Your task to perform on an android device: make emails show in primary in the gmail app Image 0: 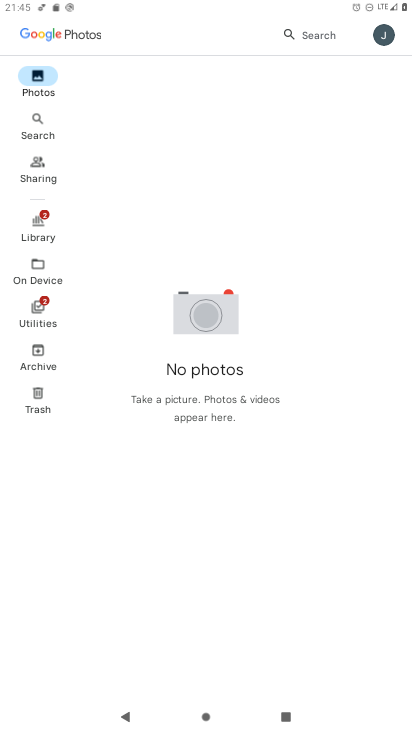
Step 0: press home button
Your task to perform on an android device: make emails show in primary in the gmail app Image 1: 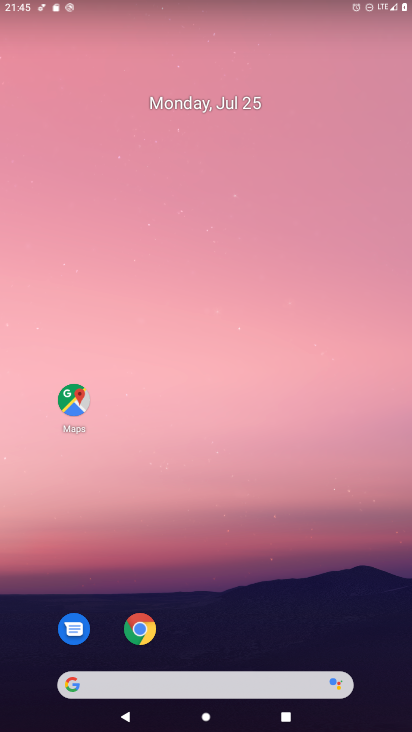
Step 1: drag from (195, 668) to (110, 141)
Your task to perform on an android device: make emails show in primary in the gmail app Image 2: 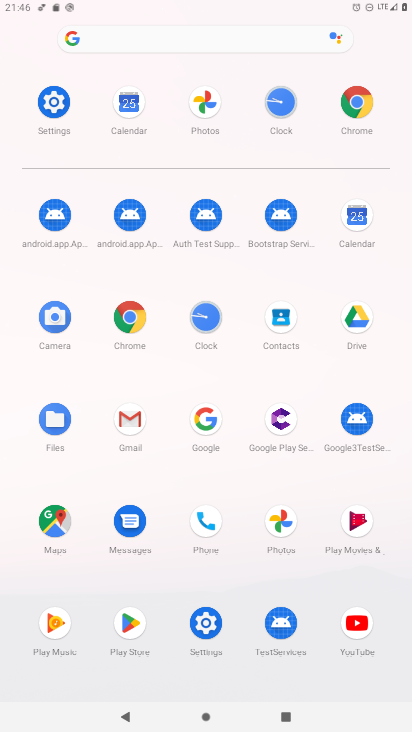
Step 2: click (131, 420)
Your task to perform on an android device: make emails show in primary in the gmail app Image 3: 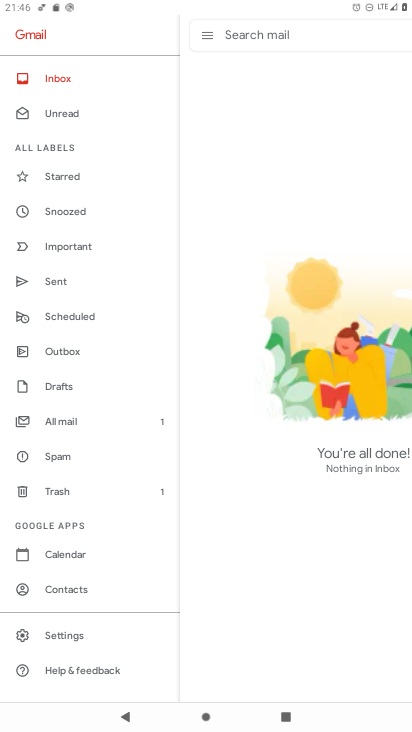
Step 3: drag from (54, 501) to (80, 317)
Your task to perform on an android device: make emails show in primary in the gmail app Image 4: 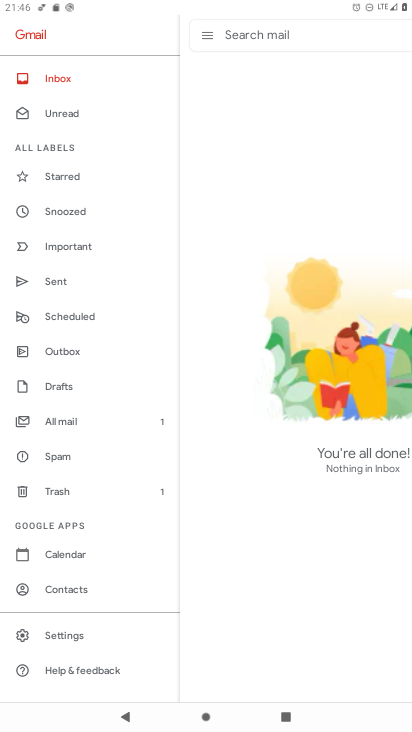
Step 4: click (59, 634)
Your task to perform on an android device: make emails show in primary in the gmail app Image 5: 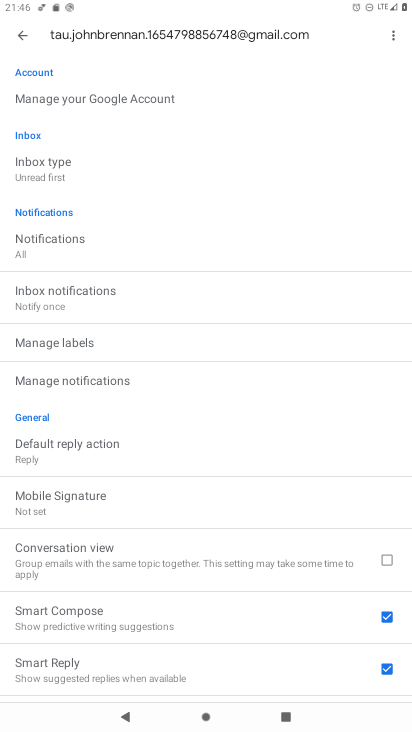
Step 5: click (48, 161)
Your task to perform on an android device: make emails show in primary in the gmail app Image 6: 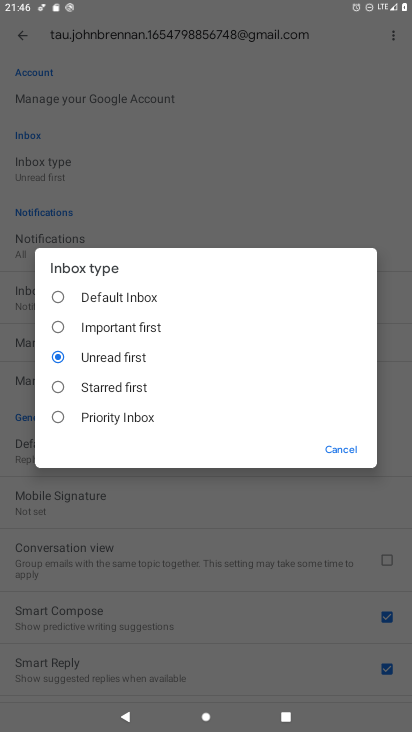
Step 6: click (60, 300)
Your task to perform on an android device: make emails show in primary in the gmail app Image 7: 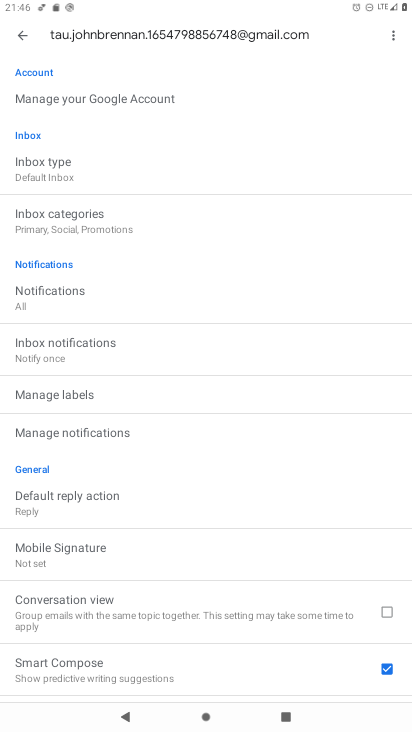
Step 7: click (91, 229)
Your task to perform on an android device: make emails show in primary in the gmail app Image 8: 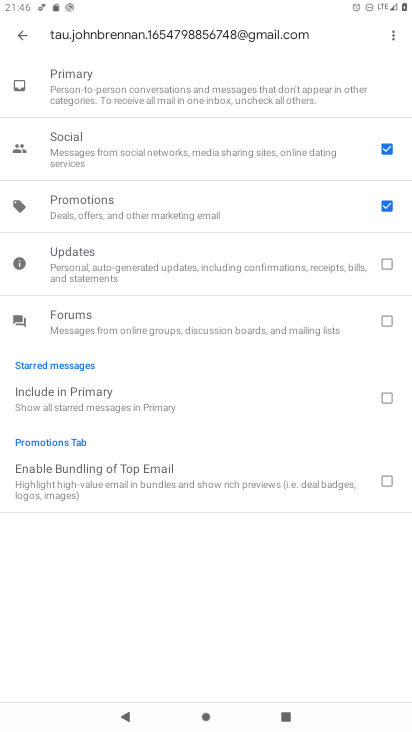
Step 8: click (387, 150)
Your task to perform on an android device: make emails show in primary in the gmail app Image 9: 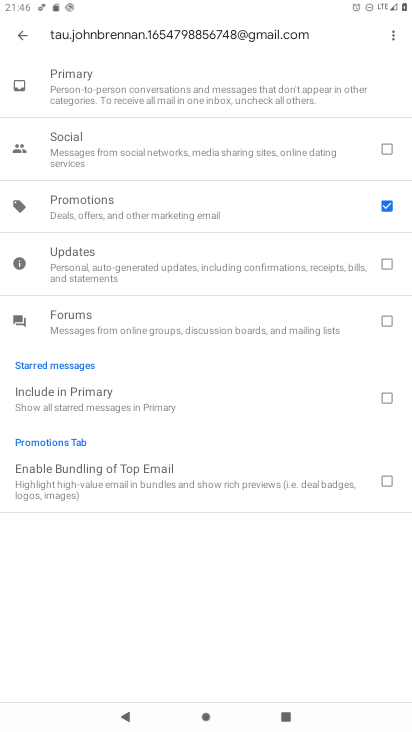
Step 9: click (385, 209)
Your task to perform on an android device: make emails show in primary in the gmail app Image 10: 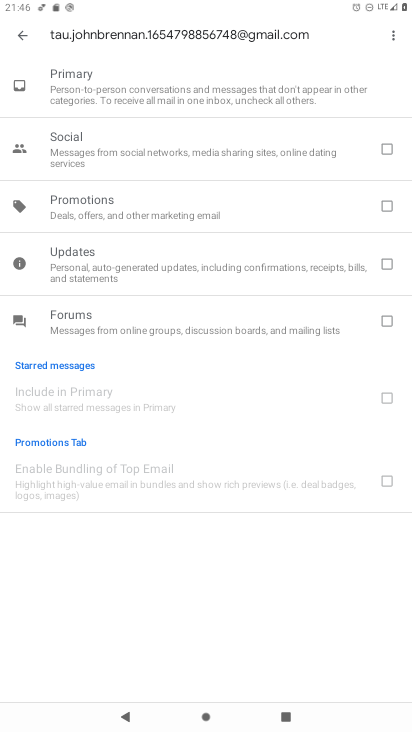
Step 10: task complete